Your task to perform on an android device: turn off notifications settings in the gmail app Image 0: 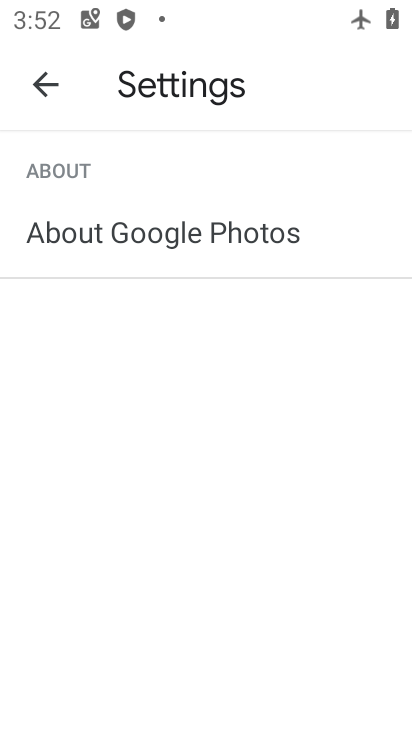
Step 0: press home button
Your task to perform on an android device: turn off notifications settings in the gmail app Image 1: 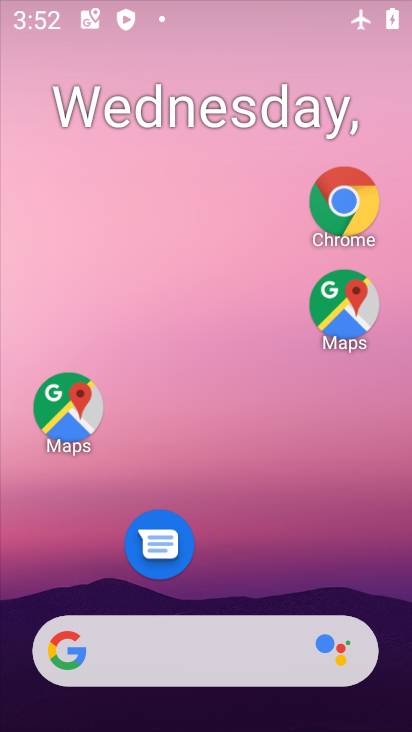
Step 1: drag from (266, 577) to (257, 112)
Your task to perform on an android device: turn off notifications settings in the gmail app Image 2: 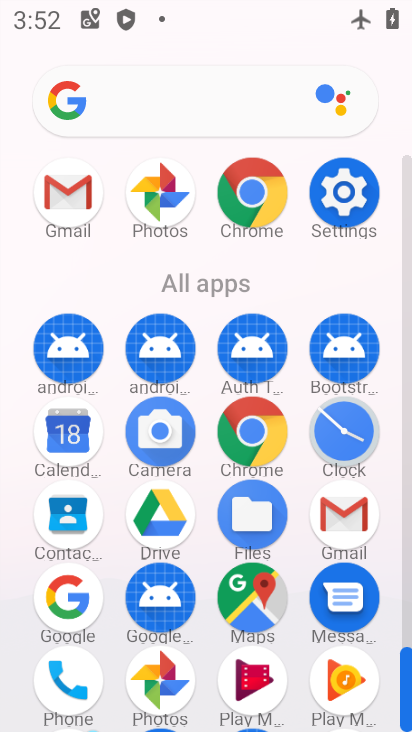
Step 2: click (70, 208)
Your task to perform on an android device: turn off notifications settings in the gmail app Image 3: 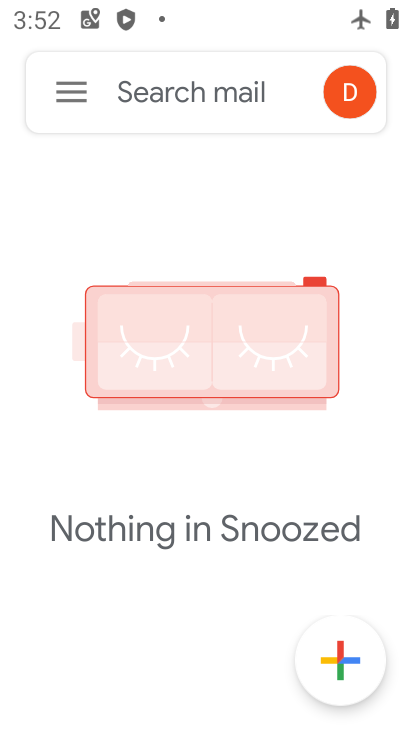
Step 3: click (69, 84)
Your task to perform on an android device: turn off notifications settings in the gmail app Image 4: 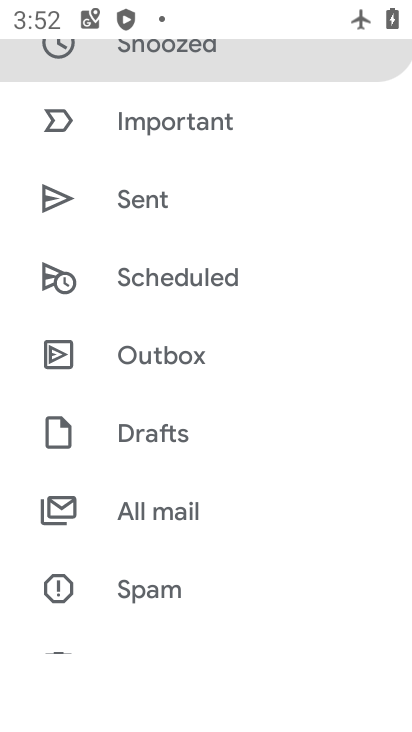
Step 4: drag from (161, 596) to (178, 271)
Your task to perform on an android device: turn off notifications settings in the gmail app Image 5: 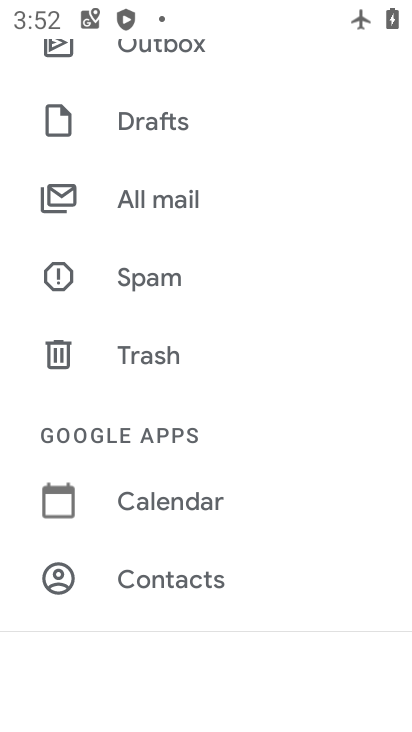
Step 5: drag from (234, 365) to (249, 329)
Your task to perform on an android device: turn off notifications settings in the gmail app Image 6: 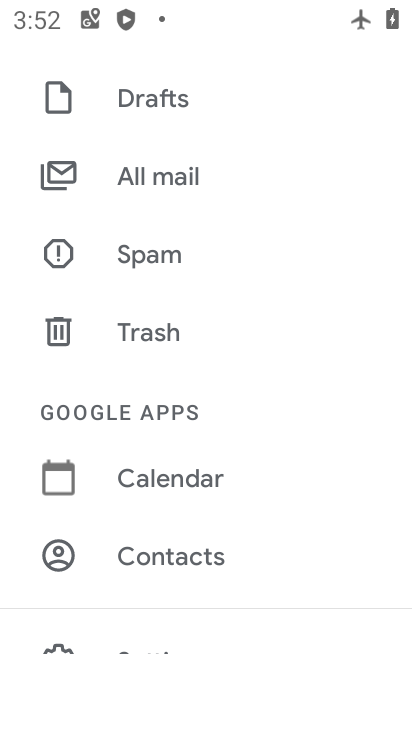
Step 6: drag from (209, 577) to (212, 263)
Your task to perform on an android device: turn off notifications settings in the gmail app Image 7: 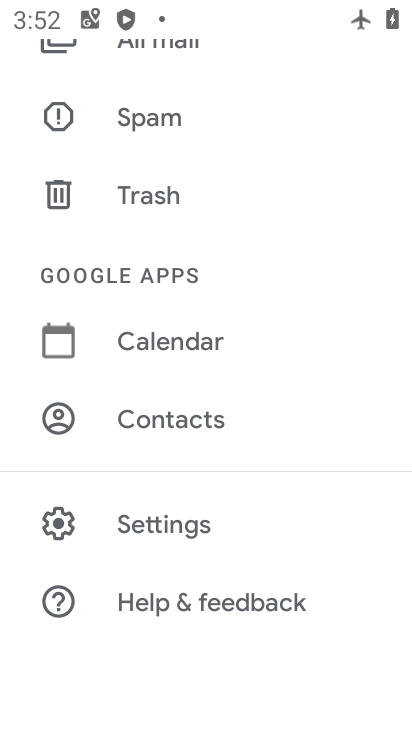
Step 7: click (149, 530)
Your task to perform on an android device: turn off notifications settings in the gmail app Image 8: 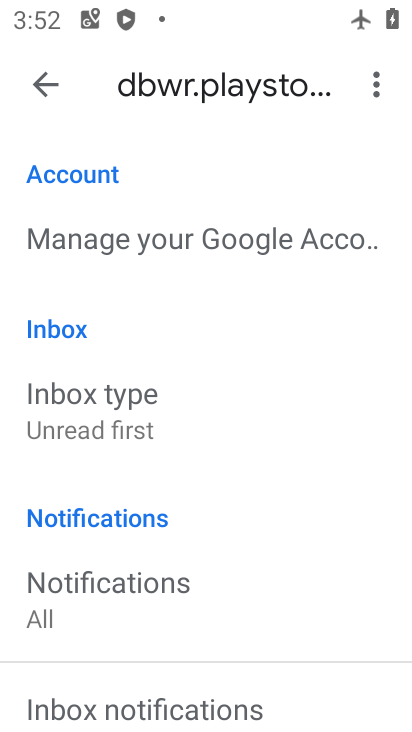
Step 8: click (131, 601)
Your task to perform on an android device: turn off notifications settings in the gmail app Image 9: 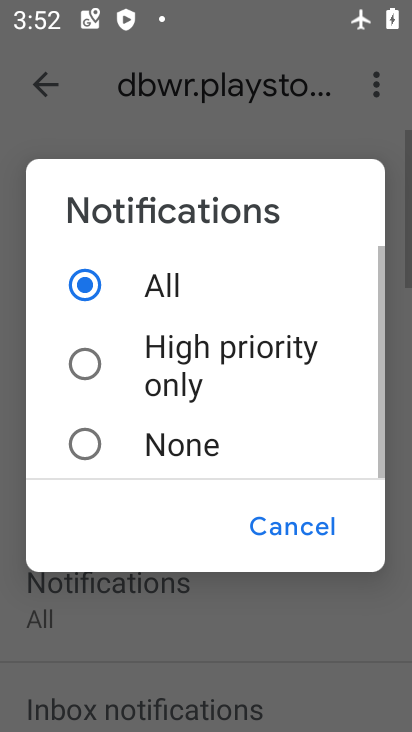
Step 9: click (94, 447)
Your task to perform on an android device: turn off notifications settings in the gmail app Image 10: 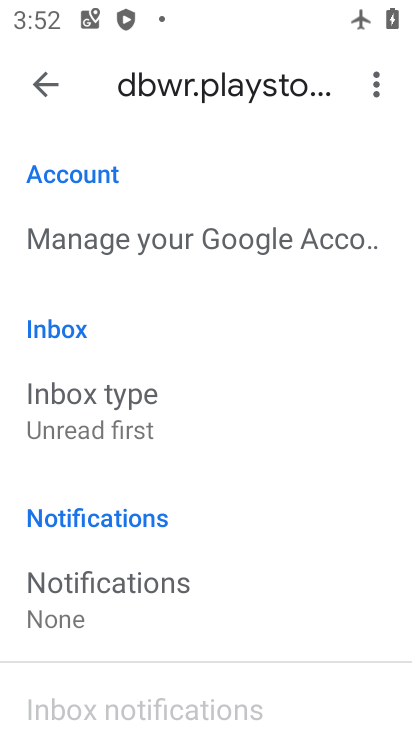
Step 10: task complete